Your task to perform on an android device: open chrome and create a bookmark for the current page Image 0: 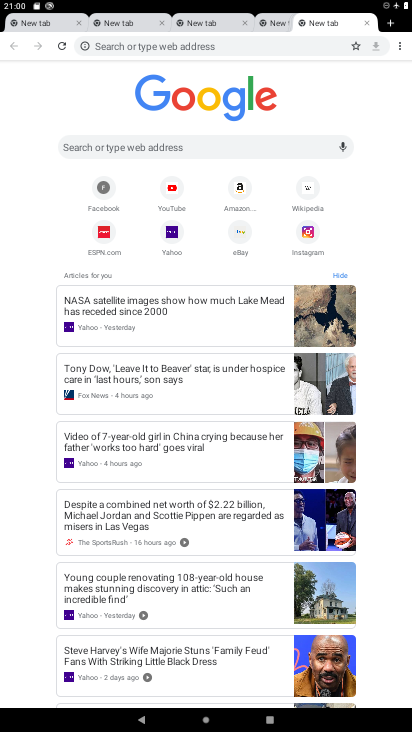
Step 0: click (406, 39)
Your task to perform on an android device: open chrome and create a bookmark for the current page Image 1: 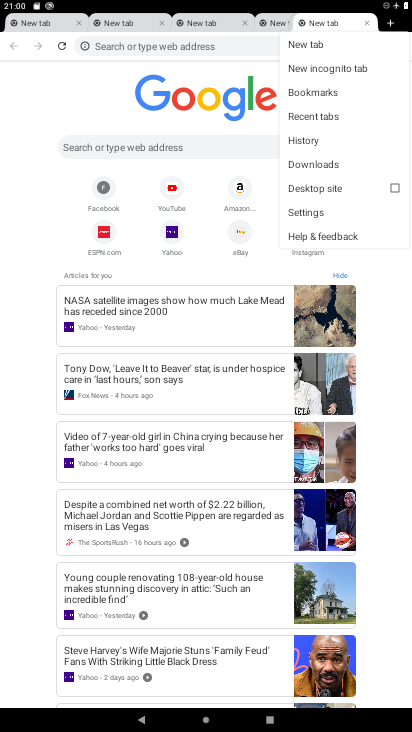
Step 1: click (47, 100)
Your task to perform on an android device: open chrome and create a bookmark for the current page Image 2: 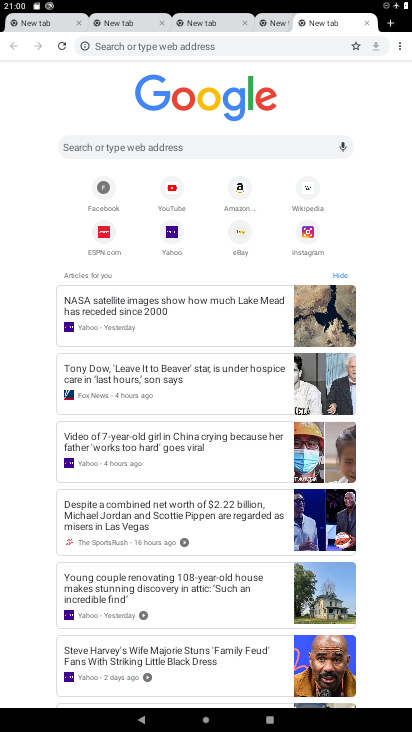
Step 2: click (357, 43)
Your task to perform on an android device: open chrome and create a bookmark for the current page Image 3: 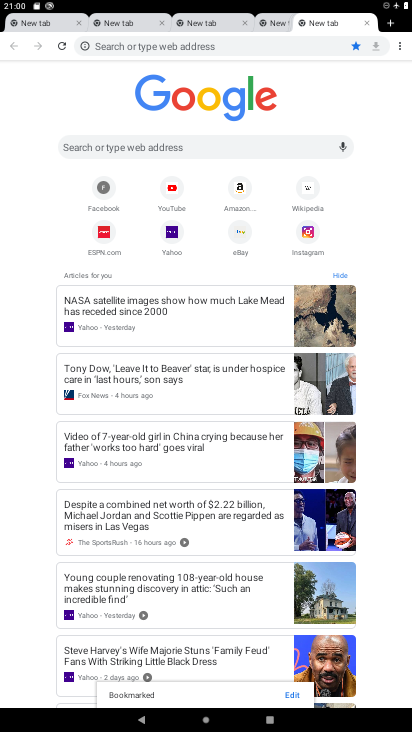
Step 3: task complete